Your task to perform on an android device: toggle notifications settings in the gmail app Image 0: 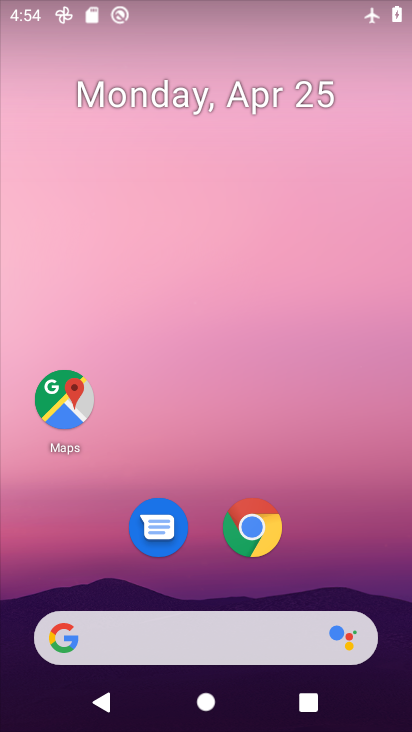
Step 0: drag from (406, 625) to (338, 126)
Your task to perform on an android device: toggle notifications settings in the gmail app Image 1: 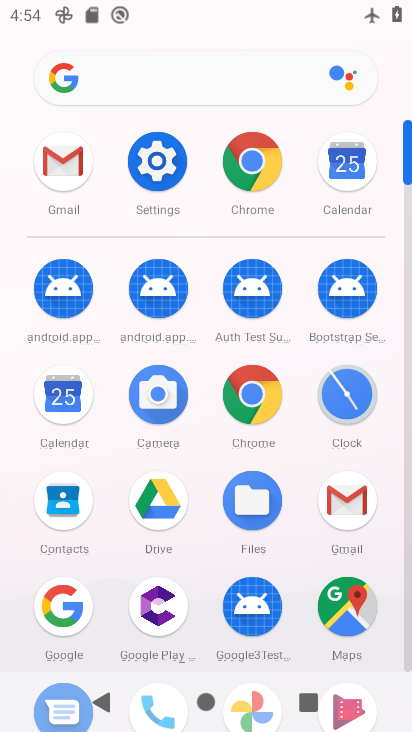
Step 1: click (404, 657)
Your task to perform on an android device: toggle notifications settings in the gmail app Image 2: 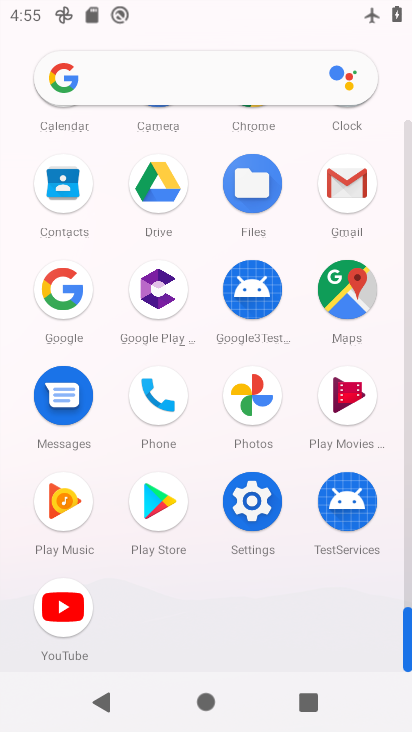
Step 2: click (344, 185)
Your task to perform on an android device: toggle notifications settings in the gmail app Image 3: 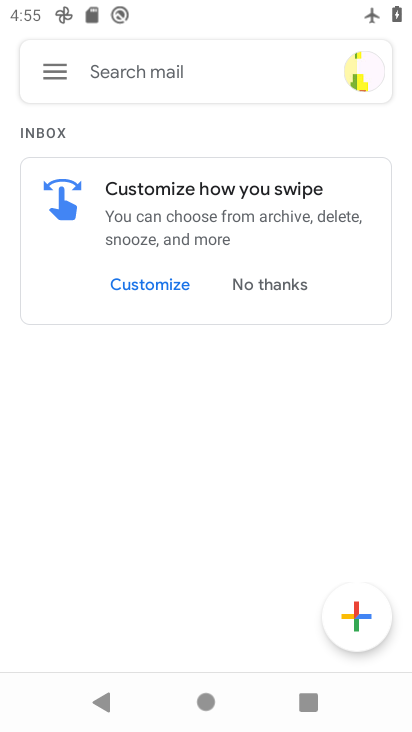
Step 3: click (49, 71)
Your task to perform on an android device: toggle notifications settings in the gmail app Image 4: 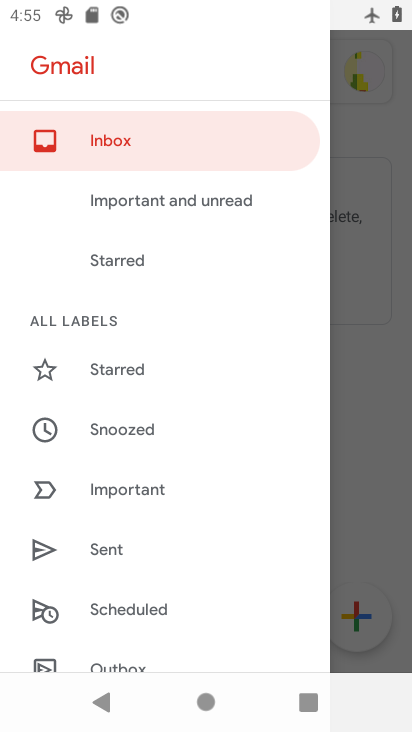
Step 4: drag from (225, 662) to (256, 122)
Your task to perform on an android device: toggle notifications settings in the gmail app Image 5: 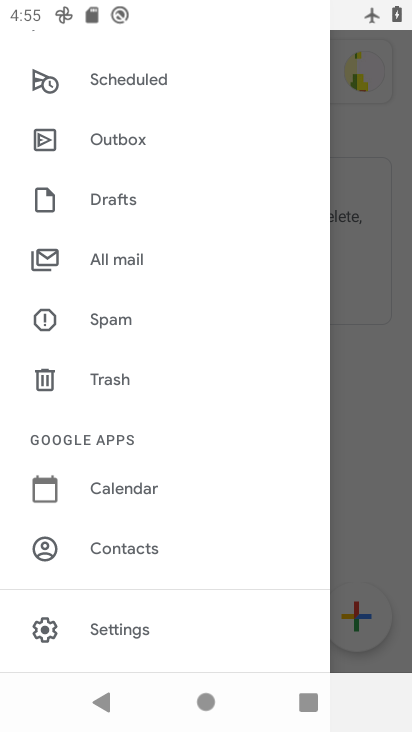
Step 5: click (102, 624)
Your task to perform on an android device: toggle notifications settings in the gmail app Image 6: 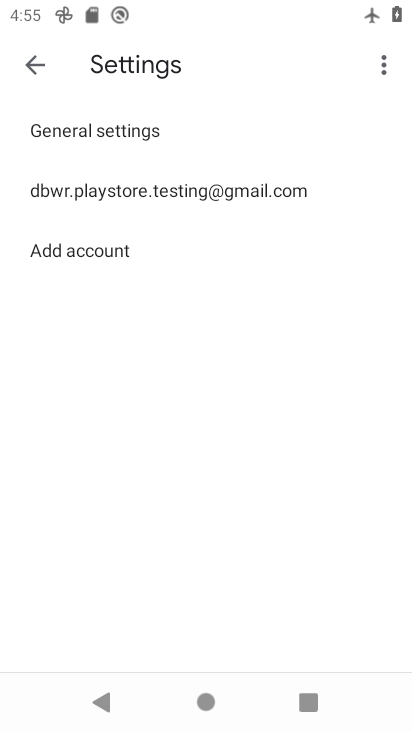
Step 6: click (147, 190)
Your task to perform on an android device: toggle notifications settings in the gmail app Image 7: 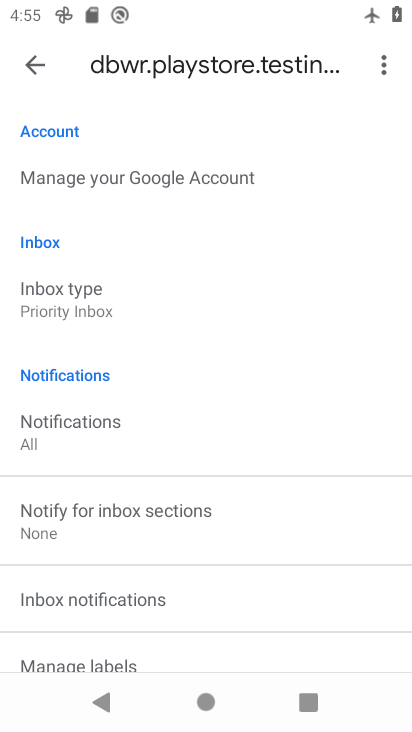
Step 7: drag from (217, 539) to (223, 267)
Your task to perform on an android device: toggle notifications settings in the gmail app Image 8: 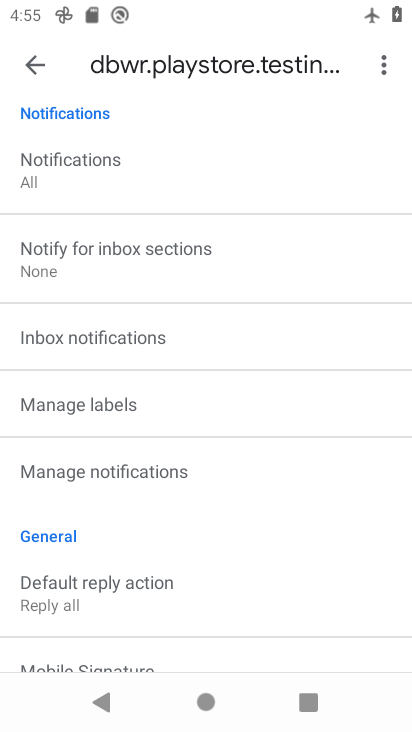
Step 8: click (131, 462)
Your task to perform on an android device: toggle notifications settings in the gmail app Image 9: 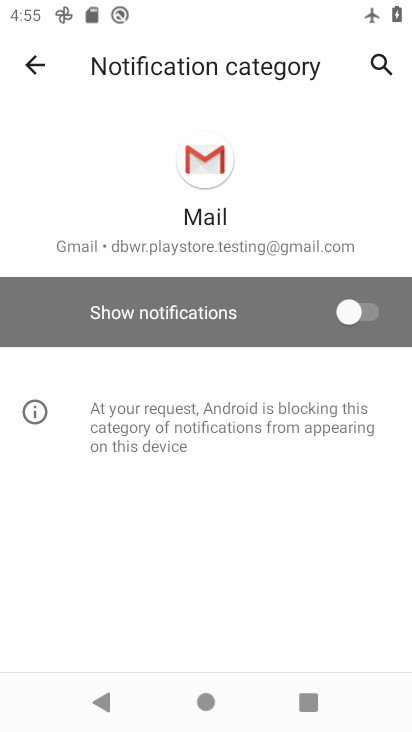
Step 9: click (373, 312)
Your task to perform on an android device: toggle notifications settings in the gmail app Image 10: 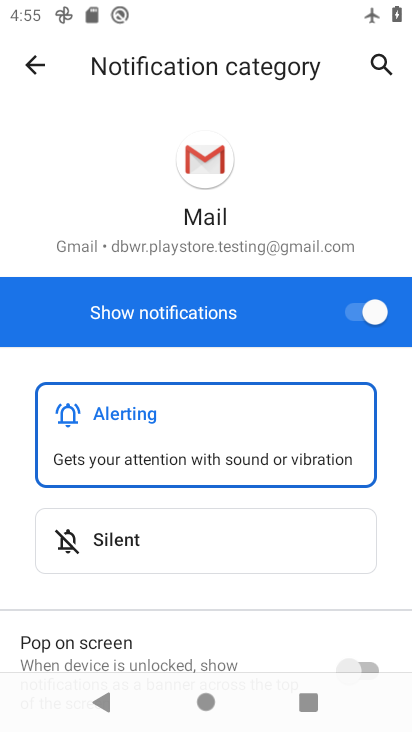
Step 10: task complete